Your task to perform on an android device: open sync settings in chrome Image 0: 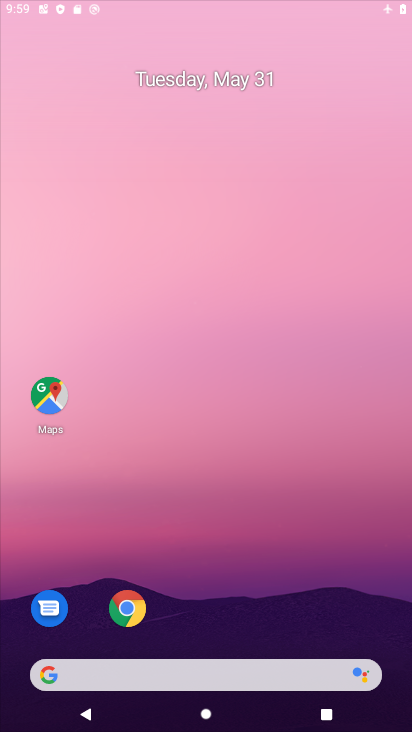
Step 0: drag from (141, 28) to (397, 246)
Your task to perform on an android device: open sync settings in chrome Image 1: 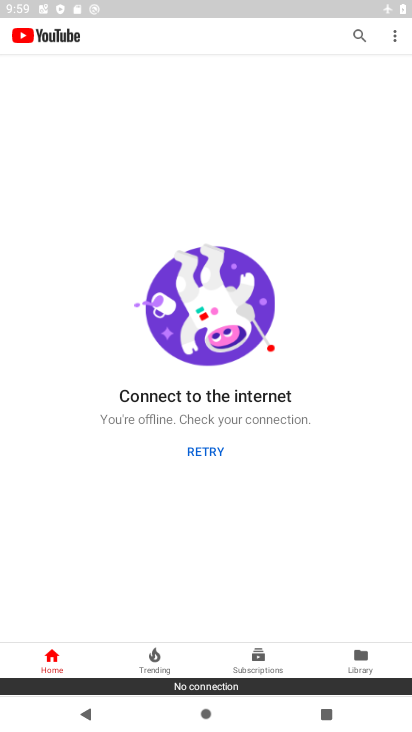
Step 1: press back button
Your task to perform on an android device: open sync settings in chrome Image 2: 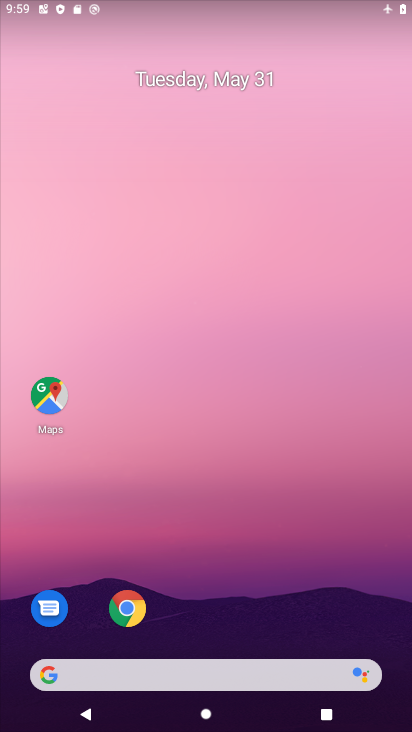
Step 2: click (118, 610)
Your task to perform on an android device: open sync settings in chrome Image 3: 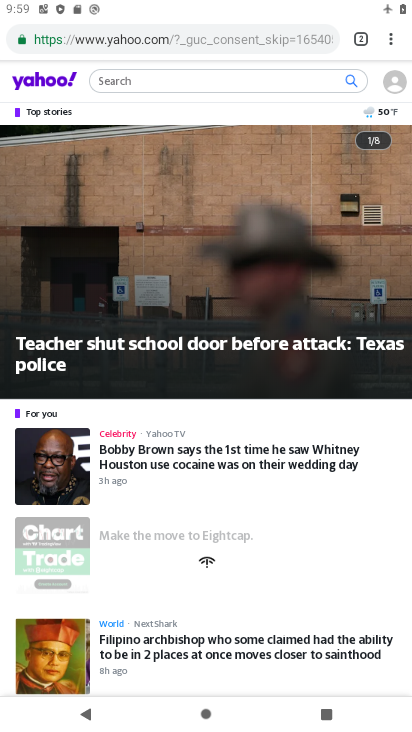
Step 3: click (387, 44)
Your task to perform on an android device: open sync settings in chrome Image 4: 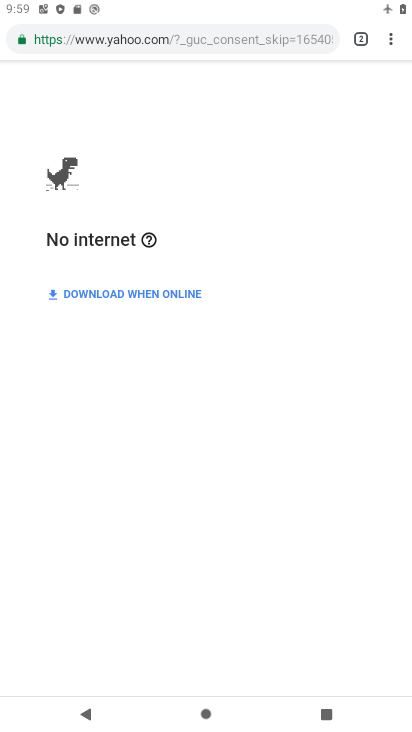
Step 4: drag from (386, 37) to (240, 481)
Your task to perform on an android device: open sync settings in chrome Image 5: 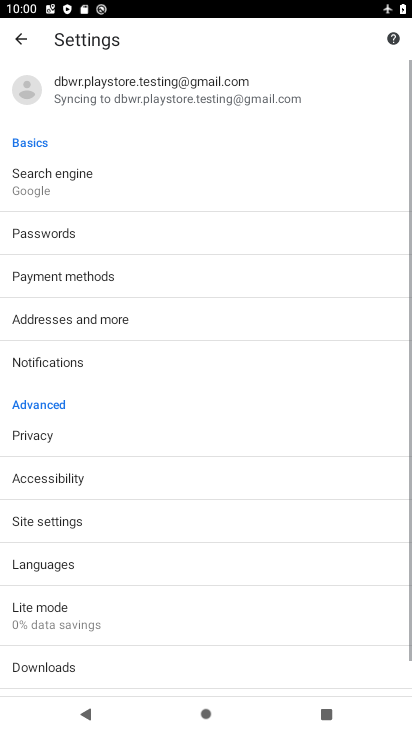
Step 5: click (96, 100)
Your task to perform on an android device: open sync settings in chrome Image 6: 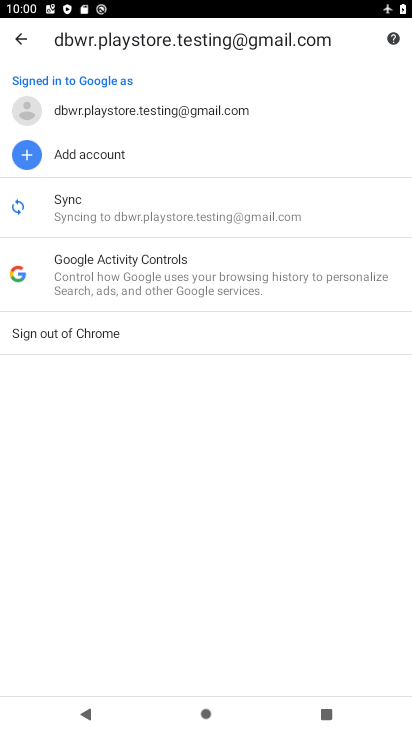
Step 6: task complete